Your task to perform on an android device: find which apps use the phone's location Image 0: 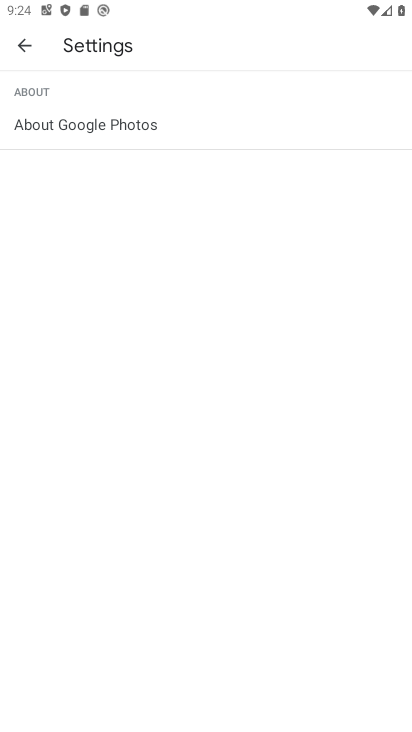
Step 0: press home button
Your task to perform on an android device: find which apps use the phone's location Image 1: 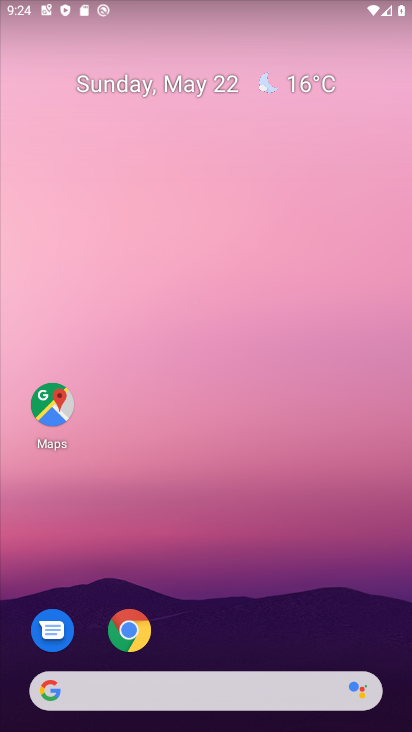
Step 1: drag from (372, 642) to (341, 110)
Your task to perform on an android device: find which apps use the phone's location Image 2: 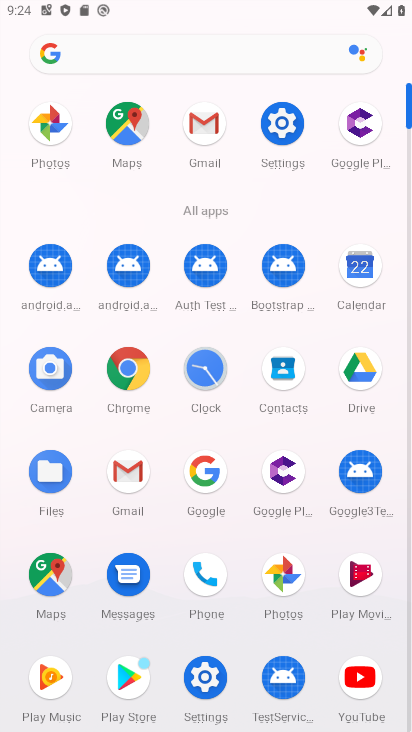
Step 2: click (410, 679)
Your task to perform on an android device: find which apps use the phone's location Image 3: 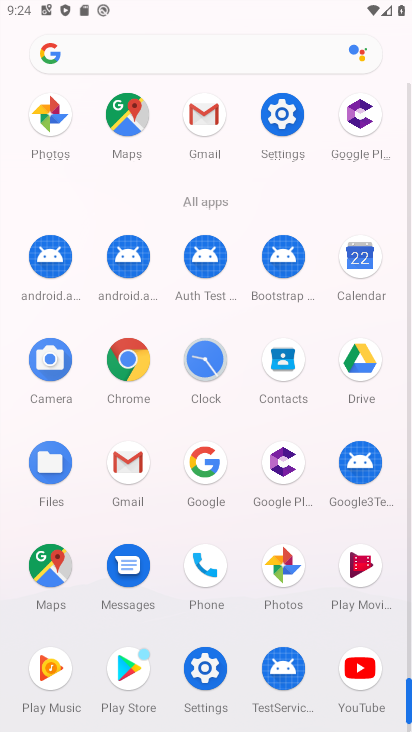
Step 3: click (205, 666)
Your task to perform on an android device: find which apps use the phone's location Image 4: 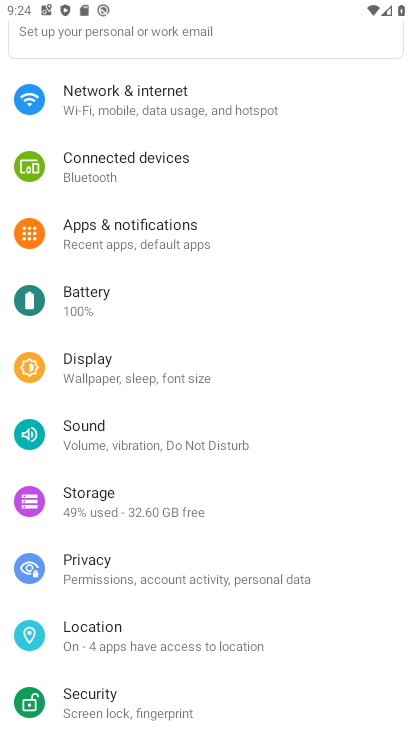
Step 4: click (118, 633)
Your task to perform on an android device: find which apps use the phone's location Image 5: 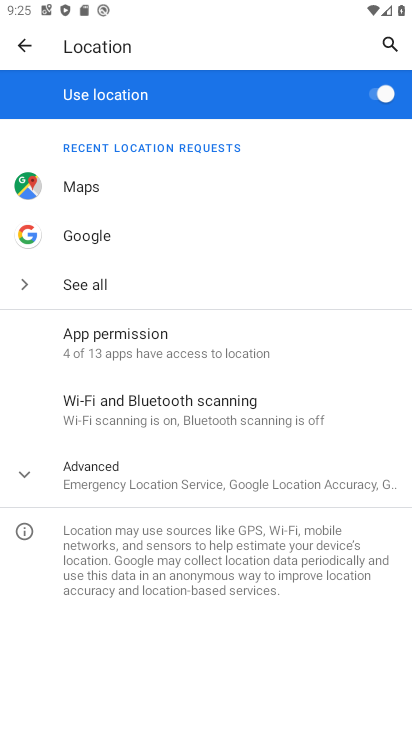
Step 5: click (96, 343)
Your task to perform on an android device: find which apps use the phone's location Image 6: 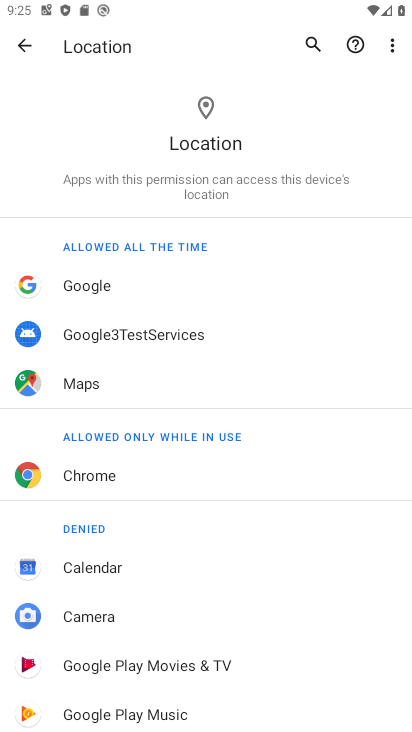
Step 6: drag from (209, 586) to (258, 205)
Your task to perform on an android device: find which apps use the phone's location Image 7: 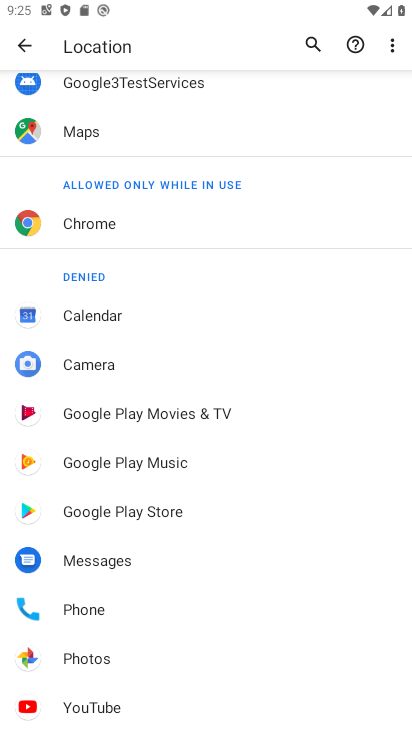
Step 7: click (68, 656)
Your task to perform on an android device: find which apps use the phone's location Image 8: 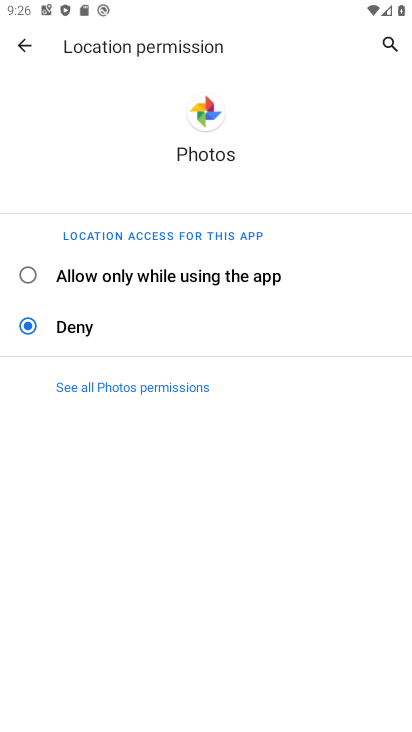
Step 8: task complete